Your task to perform on an android device: Open Youtube and go to the subscriptions tab Image 0: 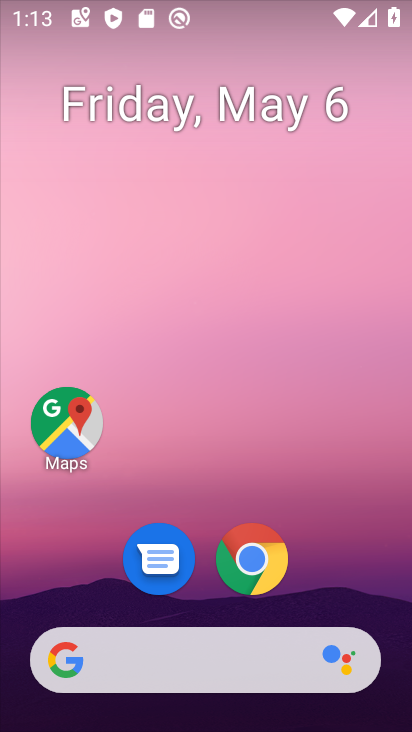
Step 0: drag from (227, 599) to (345, 0)
Your task to perform on an android device: Open Youtube and go to the subscriptions tab Image 1: 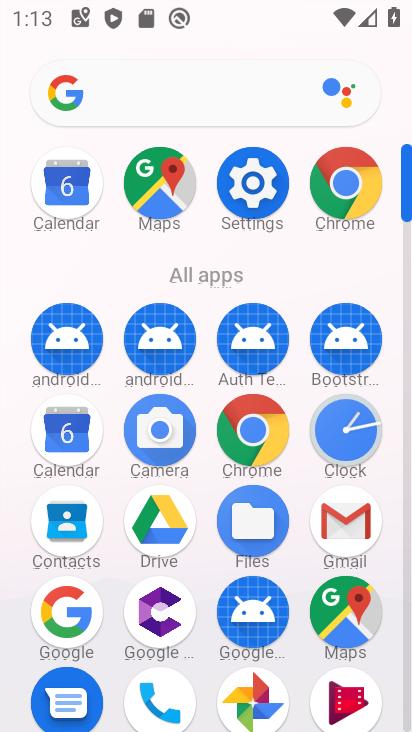
Step 1: drag from (196, 647) to (324, 258)
Your task to perform on an android device: Open Youtube and go to the subscriptions tab Image 2: 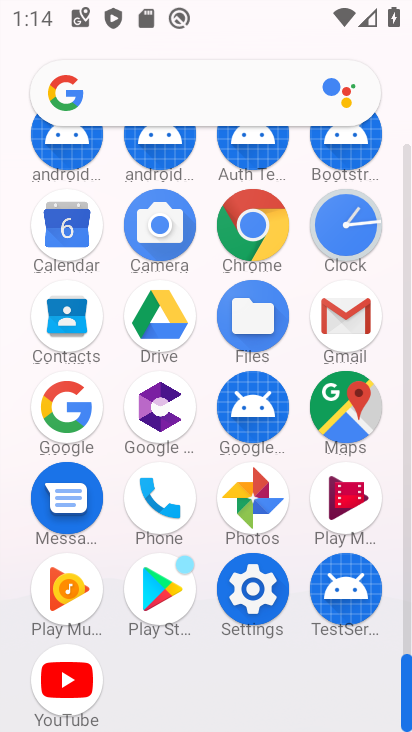
Step 2: click (72, 688)
Your task to perform on an android device: Open Youtube and go to the subscriptions tab Image 3: 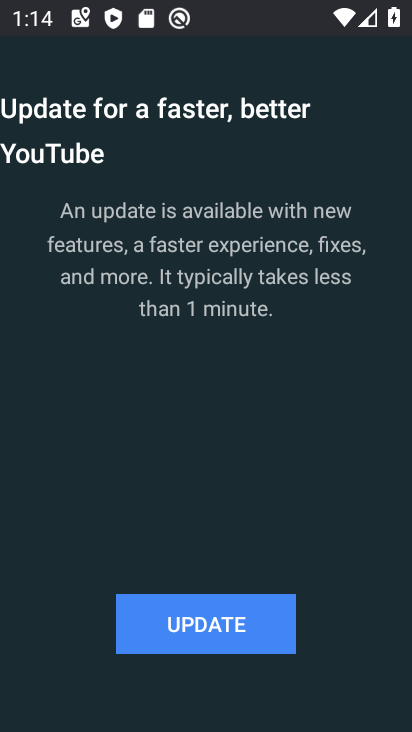
Step 3: click (229, 622)
Your task to perform on an android device: Open Youtube and go to the subscriptions tab Image 4: 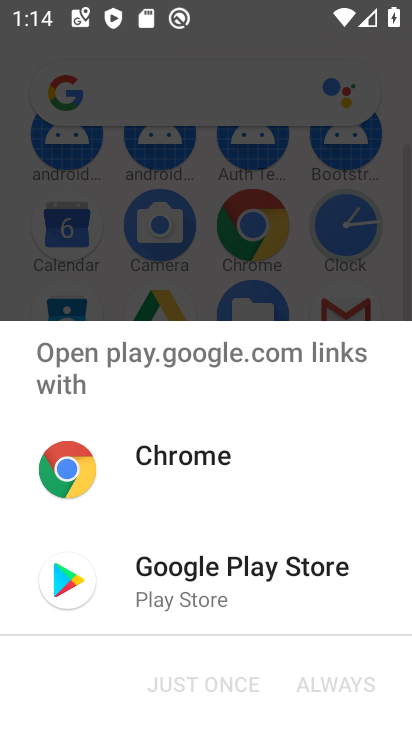
Step 4: click (164, 575)
Your task to perform on an android device: Open Youtube and go to the subscriptions tab Image 5: 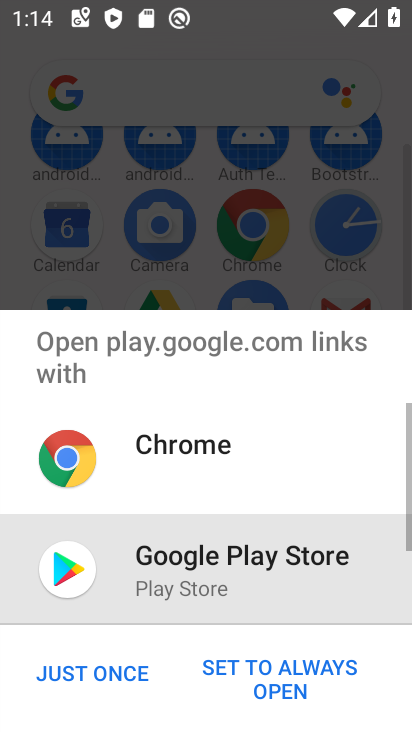
Step 5: click (103, 675)
Your task to perform on an android device: Open Youtube and go to the subscriptions tab Image 6: 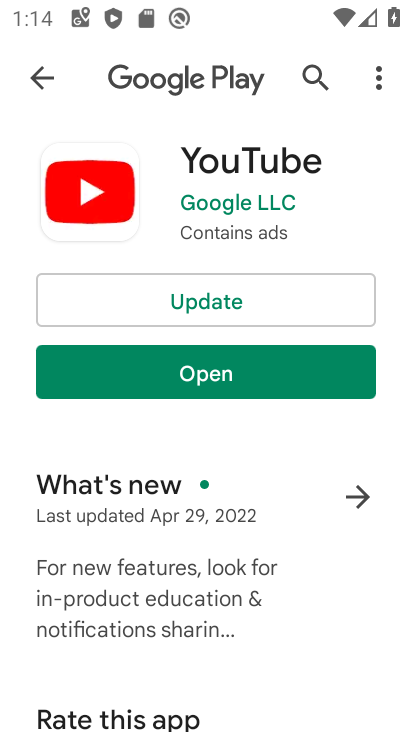
Step 6: click (234, 299)
Your task to perform on an android device: Open Youtube and go to the subscriptions tab Image 7: 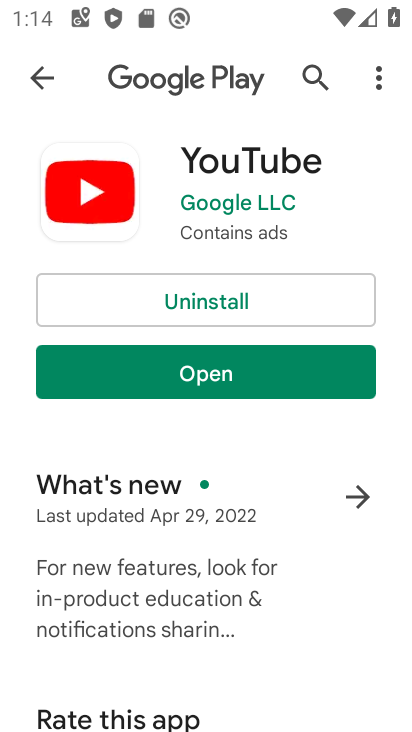
Step 7: click (231, 381)
Your task to perform on an android device: Open Youtube and go to the subscriptions tab Image 8: 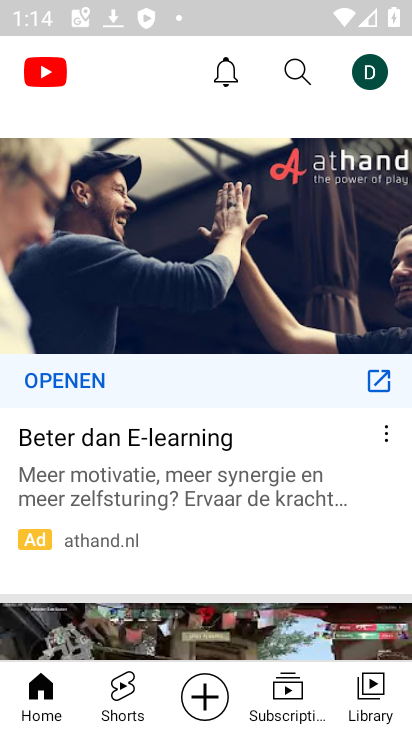
Step 8: click (292, 690)
Your task to perform on an android device: Open Youtube and go to the subscriptions tab Image 9: 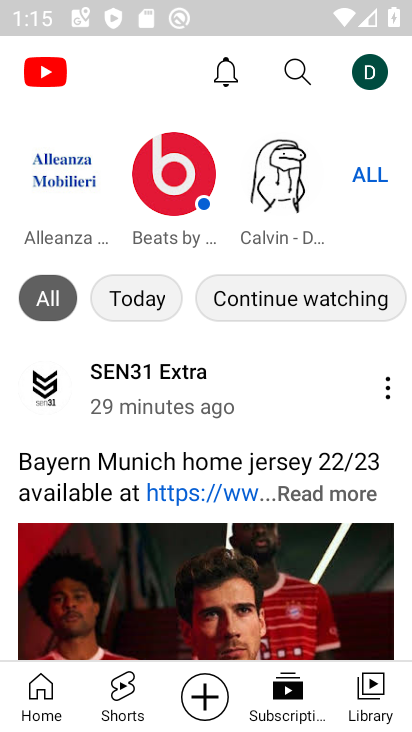
Step 9: task complete